Your task to perform on an android device: Do I have any events tomorrow? Image 0: 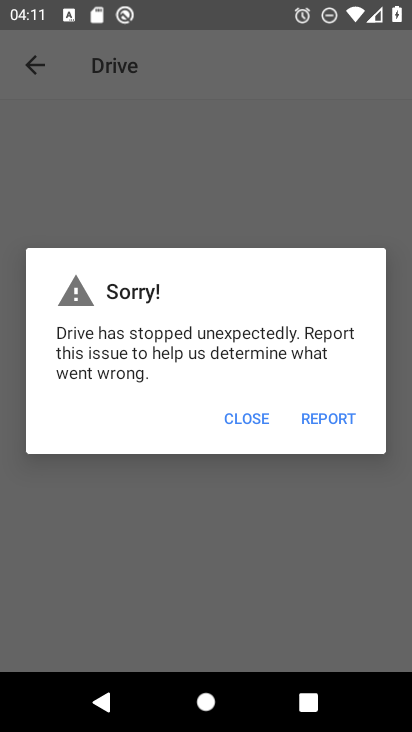
Step 0: press home button
Your task to perform on an android device: Do I have any events tomorrow? Image 1: 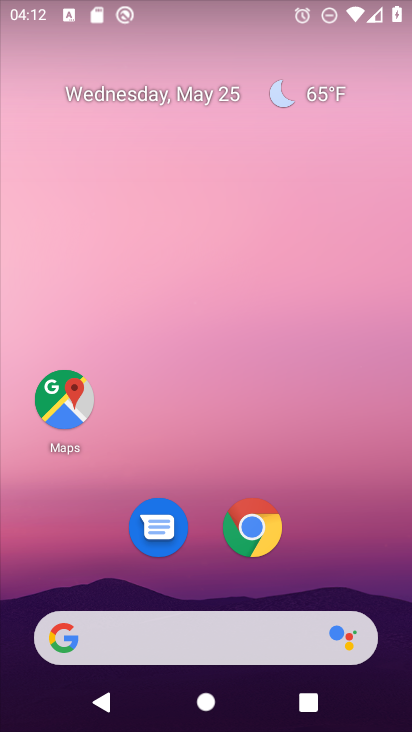
Step 1: drag from (231, 620) to (346, 39)
Your task to perform on an android device: Do I have any events tomorrow? Image 2: 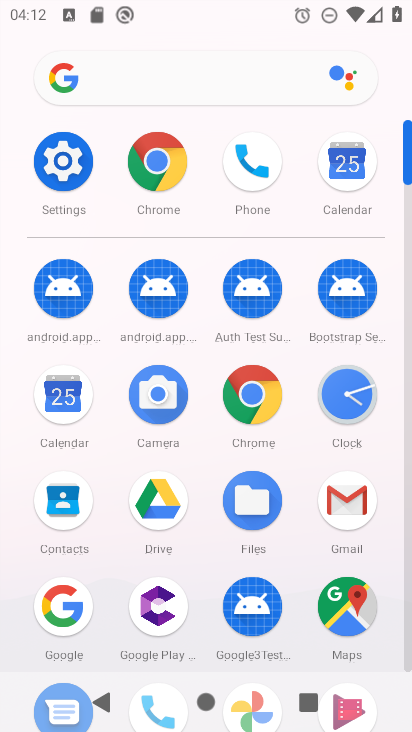
Step 2: click (54, 375)
Your task to perform on an android device: Do I have any events tomorrow? Image 3: 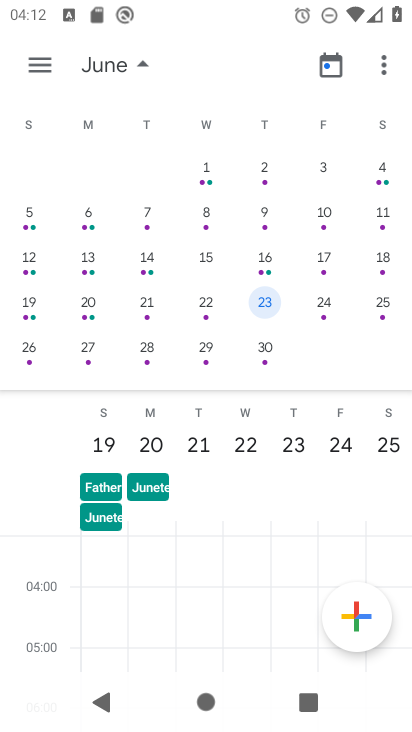
Step 3: drag from (67, 274) to (409, 331)
Your task to perform on an android device: Do I have any events tomorrow? Image 4: 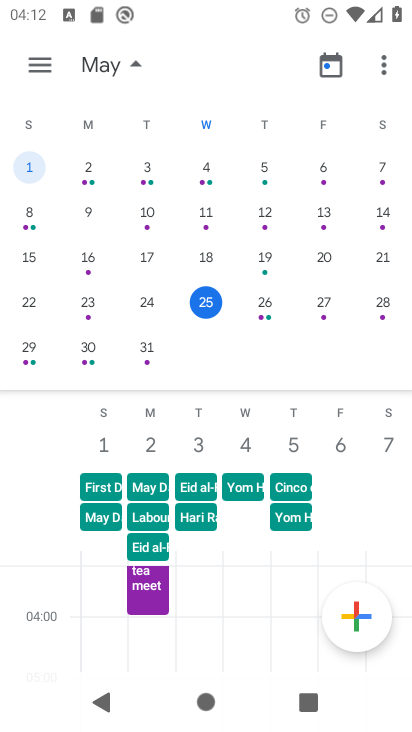
Step 4: click (267, 300)
Your task to perform on an android device: Do I have any events tomorrow? Image 5: 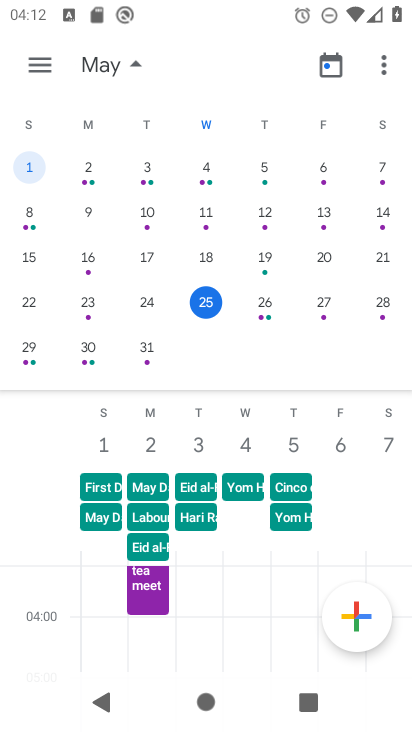
Step 5: click (257, 299)
Your task to perform on an android device: Do I have any events tomorrow? Image 6: 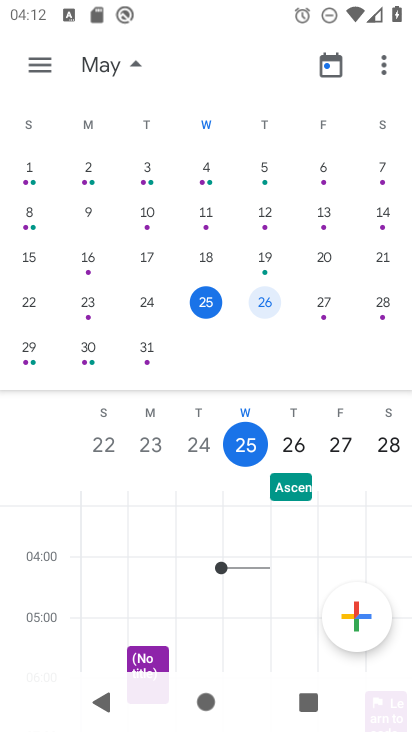
Step 6: task complete